Your task to perform on an android device: Turn on the flashlight Image 0: 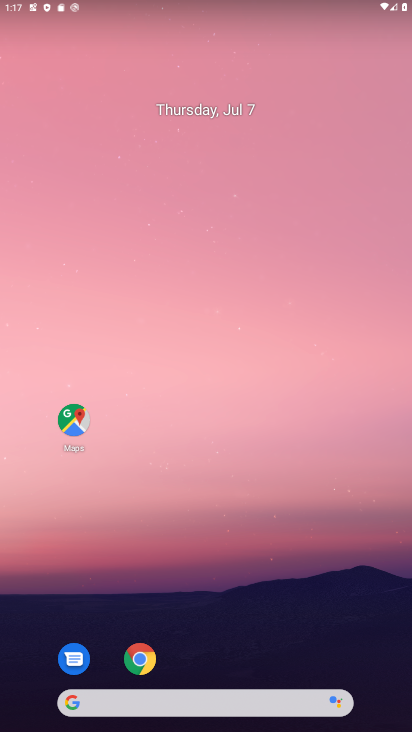
Step 0: press home button
Your task to perform on an android device: Turn on the flashlight Image 1: 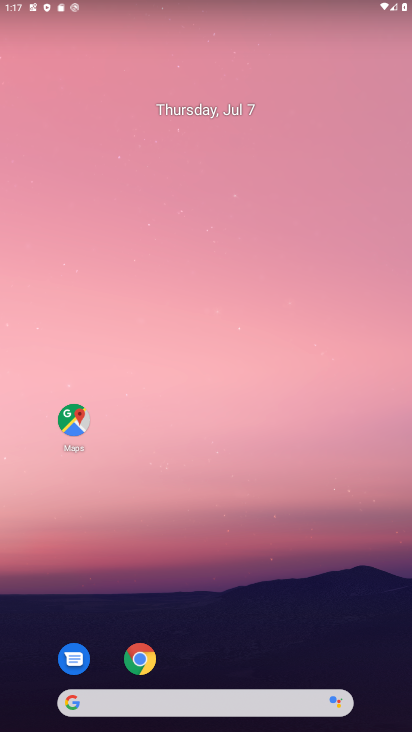
Step 1: drag from (220, 669) to (235, 98)
Your task to perform on an android device: Turn on the flashlight Image 2: 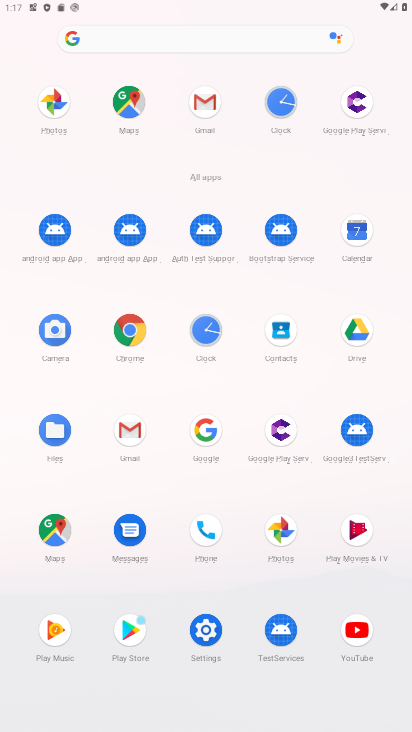
Step 2: drag from (165, 589) to (195, 244)
Your task to perform on an android device: Turn on the flashlight Image 3: 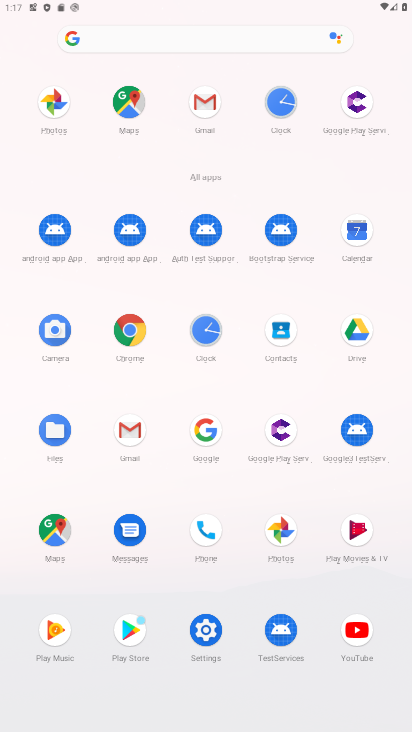
Step 3: click (203, 626)
Your task to perform on an android device: Turn on the flashlight Image 4: 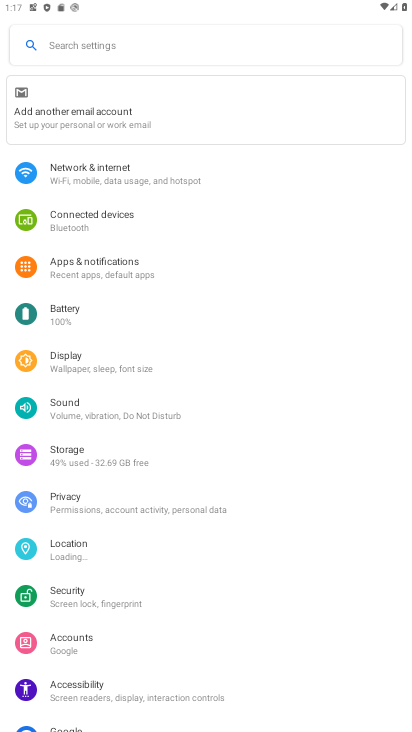
Step 4: click (84, 40)
Your task to perform on an android device: Turn on the flashlight Image 5: 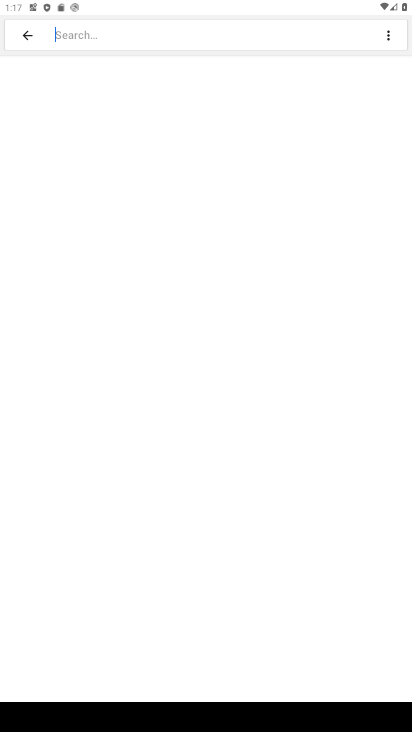
Step 5: type "flashlight"
Your task to perform on an android device: Turn on the flashlight Image 6: 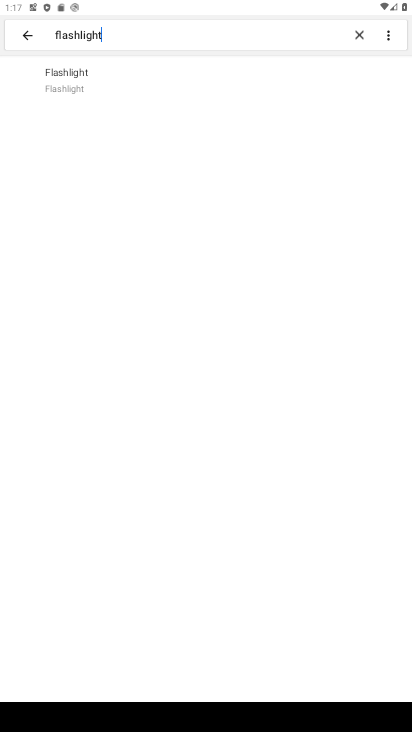
Step 6: click (83, 78)
Your task to perform on an android device: Turn on the flashlight Image 7: 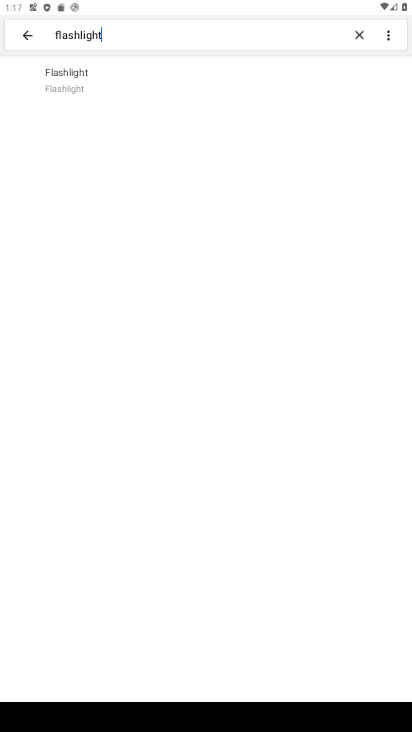
Step 7: click (96, 77)
Your task to perform on an android device: Turn on the flashlight Image 8: 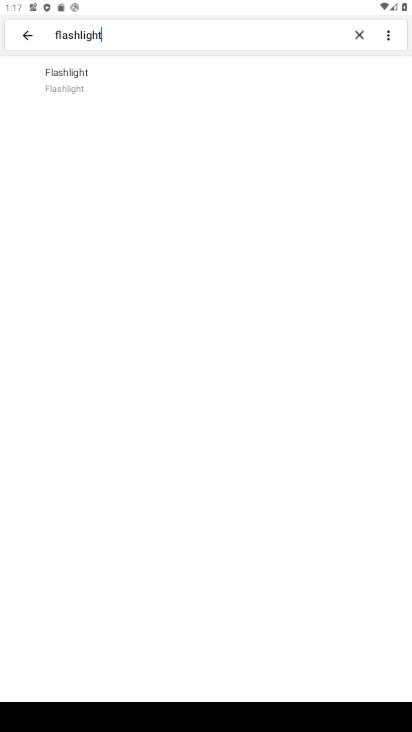
Step 8: task complete